Your task to perform on an android device: Empty the shopping cart on costco. Search for asus rog on costco, select the first entry, add it to the cart, then select checkout. Image 0: 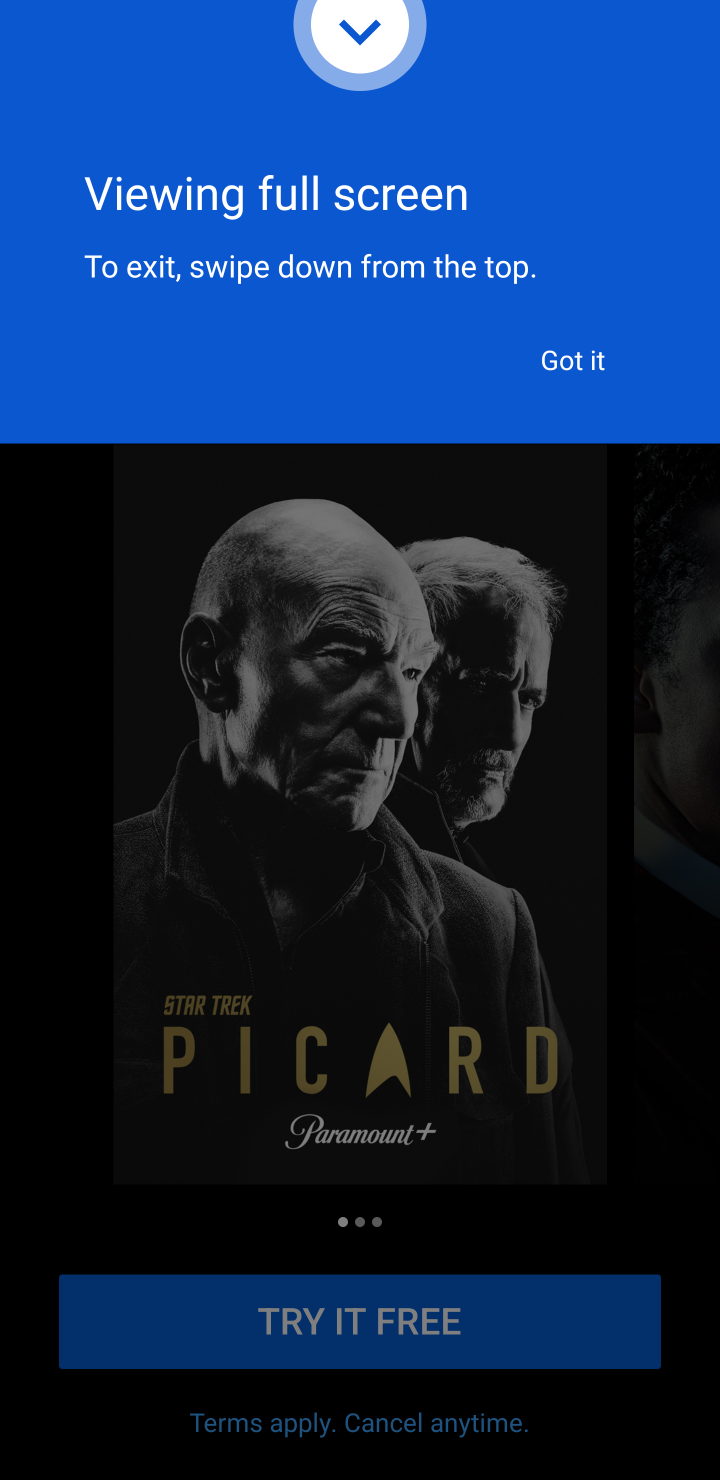
Step 0: press home button
Your task to perform on an android device: Empty the shopping cart on costco. Search for asus rog on costco, select the first entry, add it to the cart, then select checkout. Image 1: 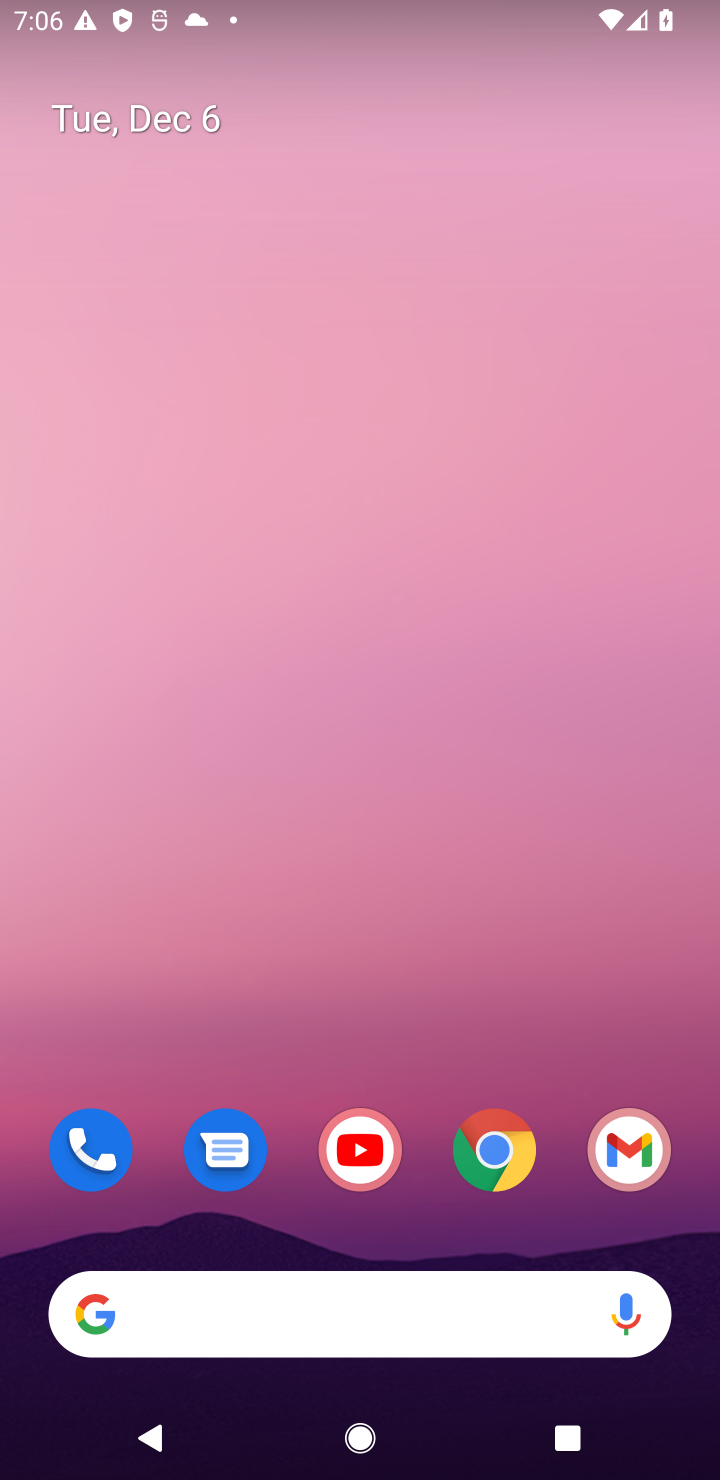
Step 1: click (500, 1146)
Your task to perform on an android device: Empty the shopping cart on costco. Search for asus rog on costco, select the first entry, add it to the cart, then select checkout. Image 2: 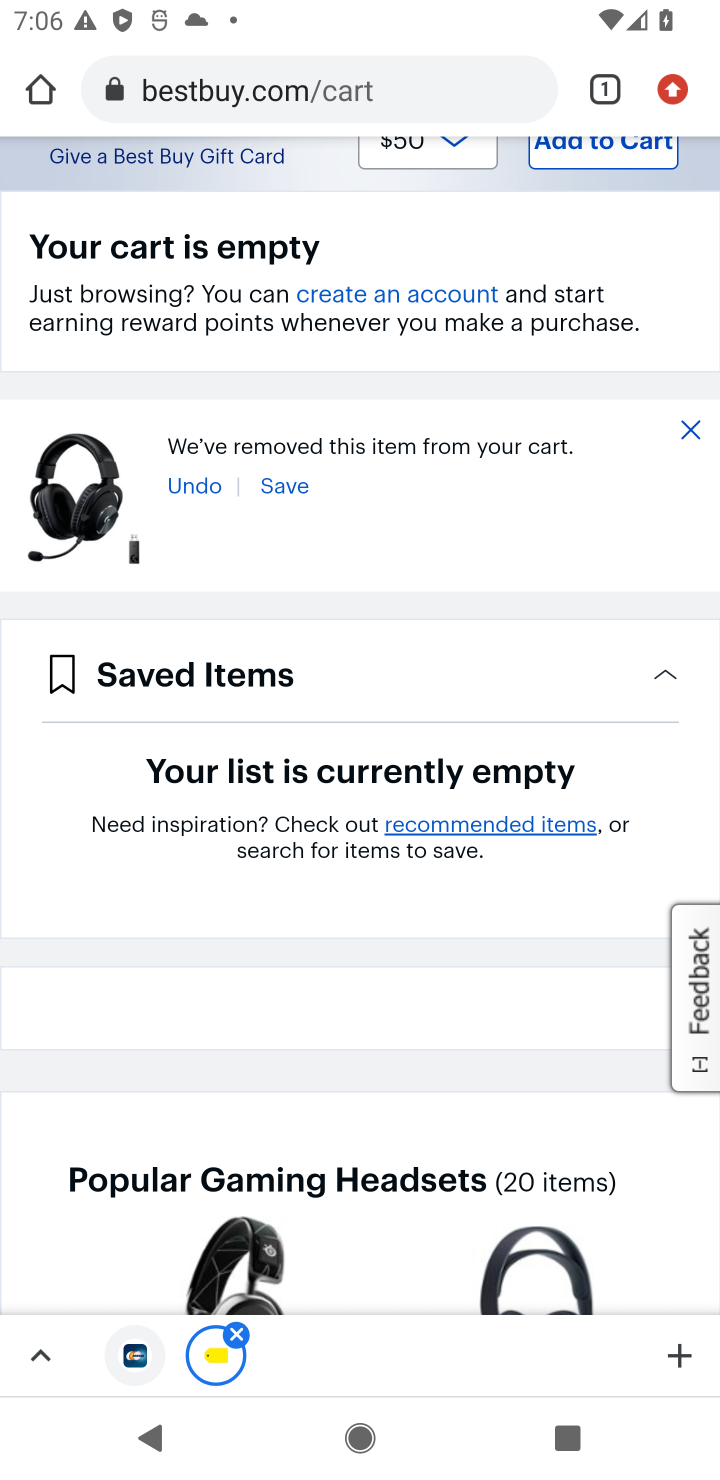
Step 2: click (271, 82)
Your task to perform on an android device: Empty the shopping cart on costco. Search for asus rog on costco, select the first entry, add it to the cart, then select checkout. Image 3: 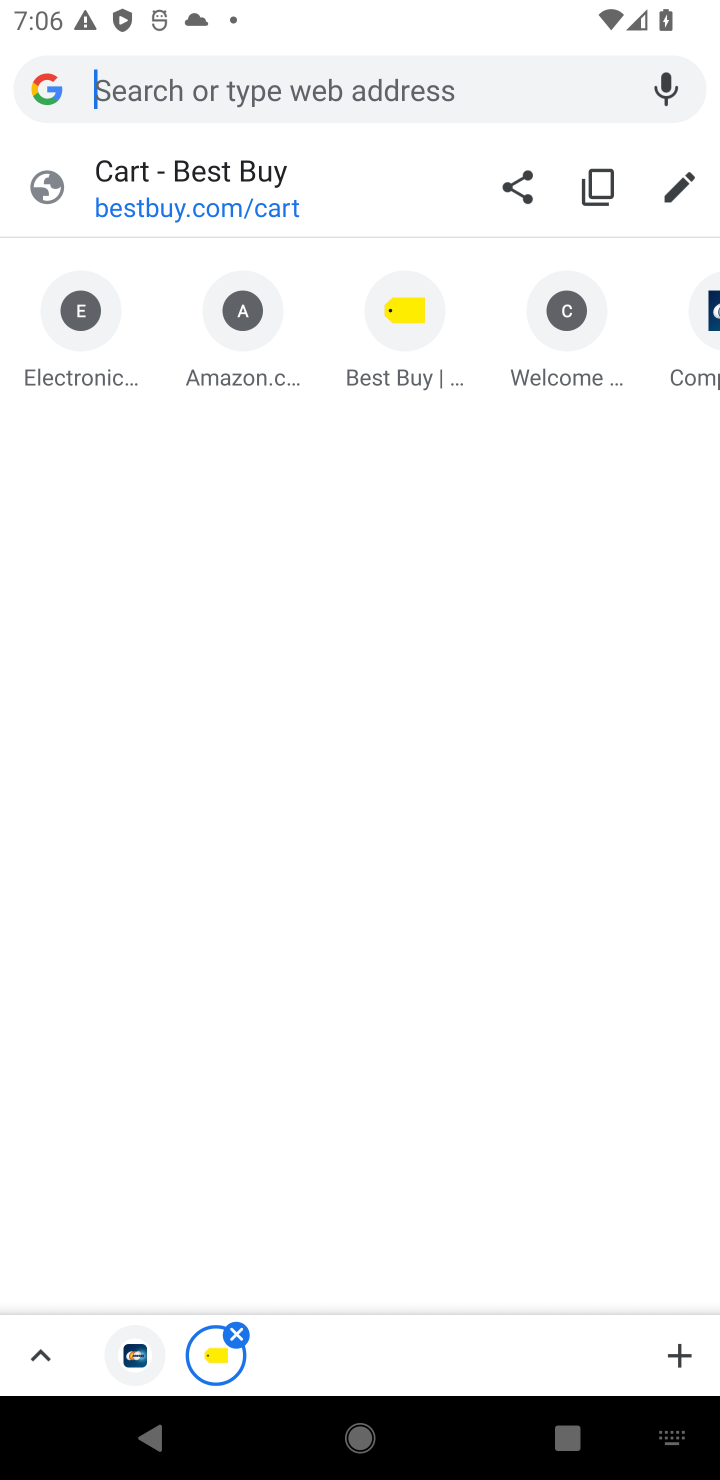
Step 3: type "costco.com"
Your task to perform on an android device: Empty the shopping cart on costco. Search for asus rog on costco, select the first entry, add it to the cart, then select checkout. Image 4: 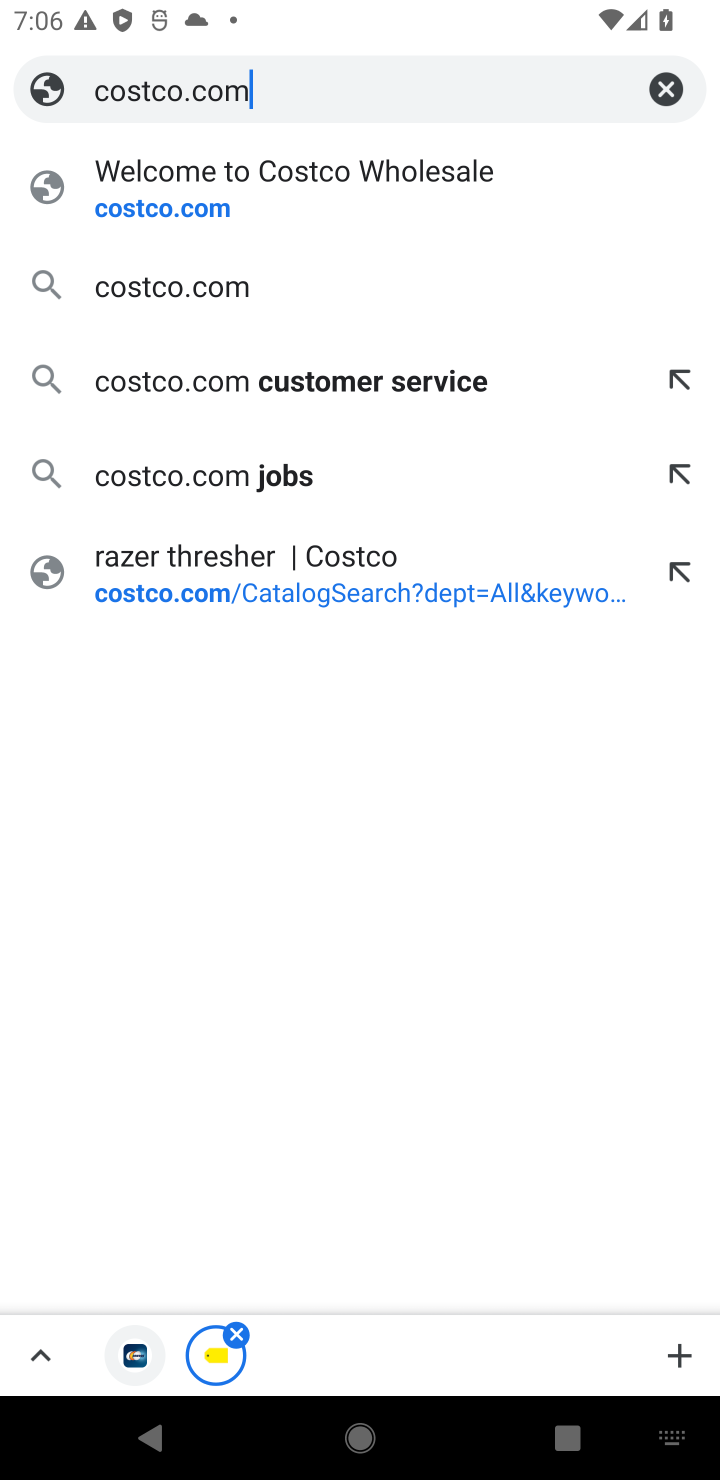
Step 4: click (206, 220)
Your task to perform on an android device: Empty the shopping cart on costco. Search for asus rog on costco, select the first entry, add it to the cart, then select checkout. Image 5: 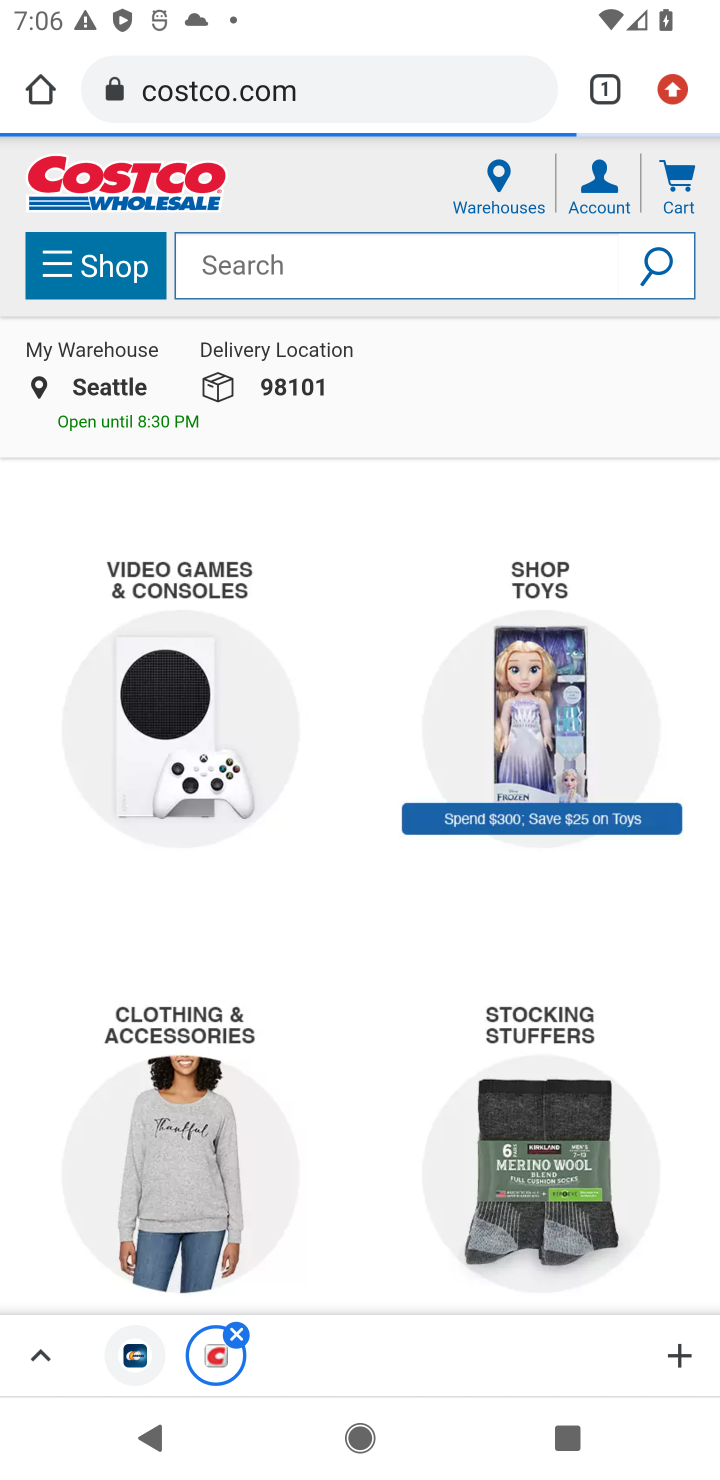
Step 5: click (685, 201)
Your task to perform on an android device: Empty the shopping cart on costco. Search for asus rog on costco, select the first entry, add it to the cart, then select checkout. Image 6: 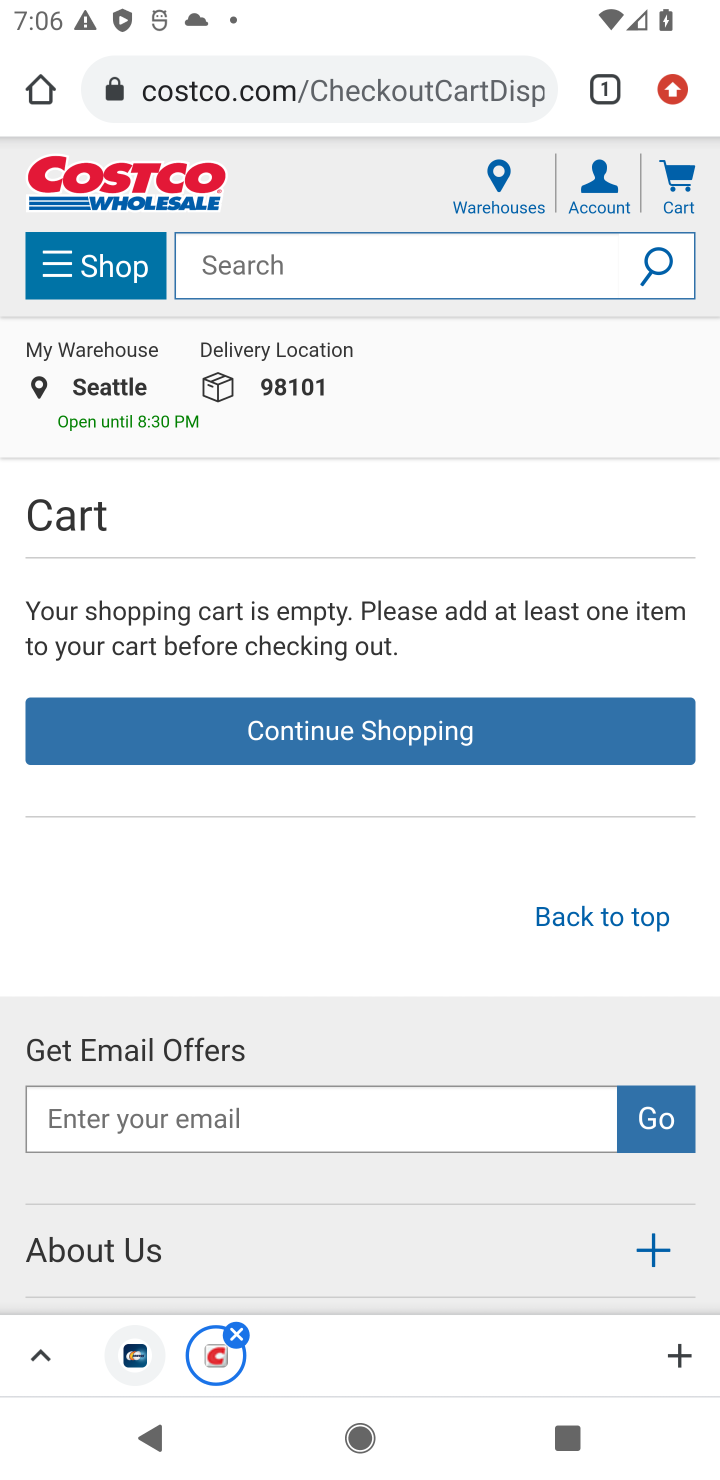
Step 6: click (253, 281)
Your task to perform on an android device: Empty the shopping cart on costco. Search for asus rog on costco, select the first entry, add it to the cart, then select checkout. Image 7: 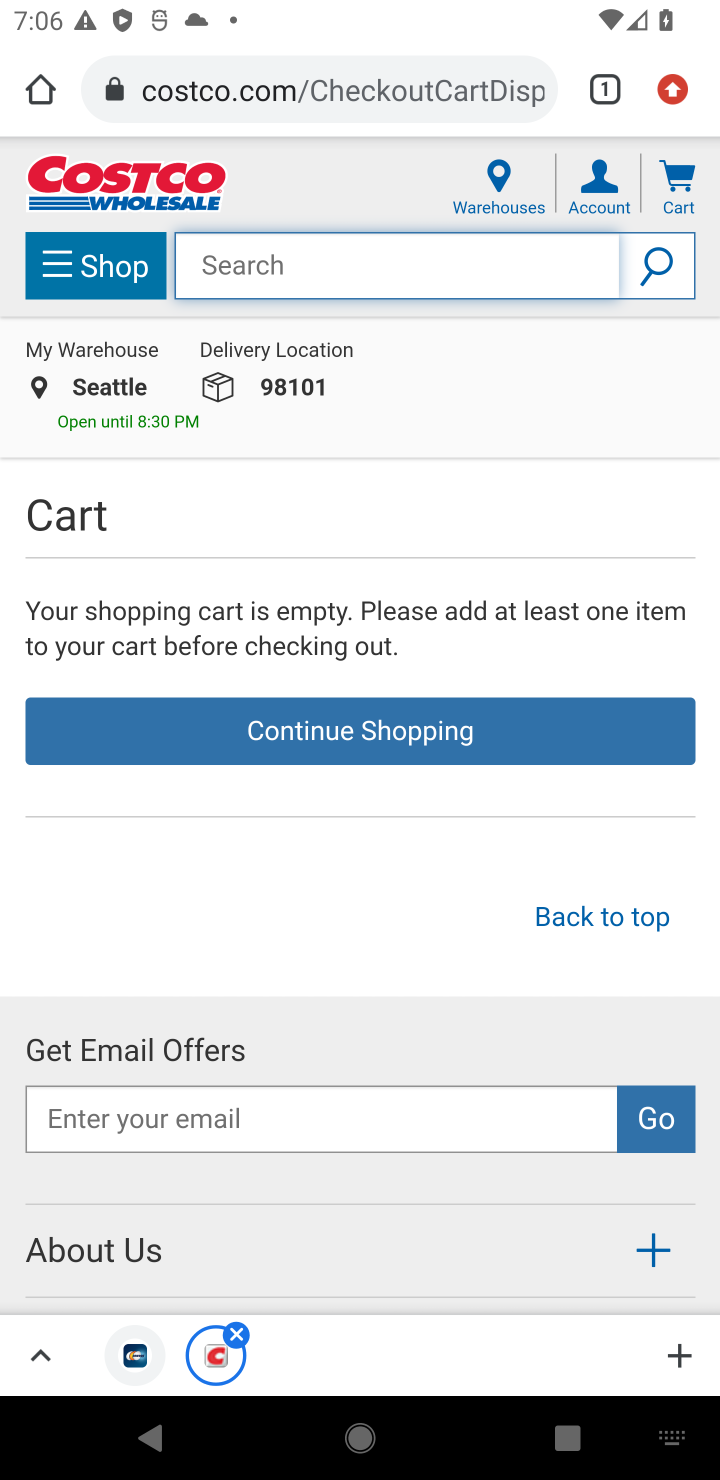
Step 7: type "asus rog"
Your task to perform on an android device: Empty the shopping cart on costco. Search for asus rog on costco, select the first entry, add it to the cart, then select checkout. Image 8: 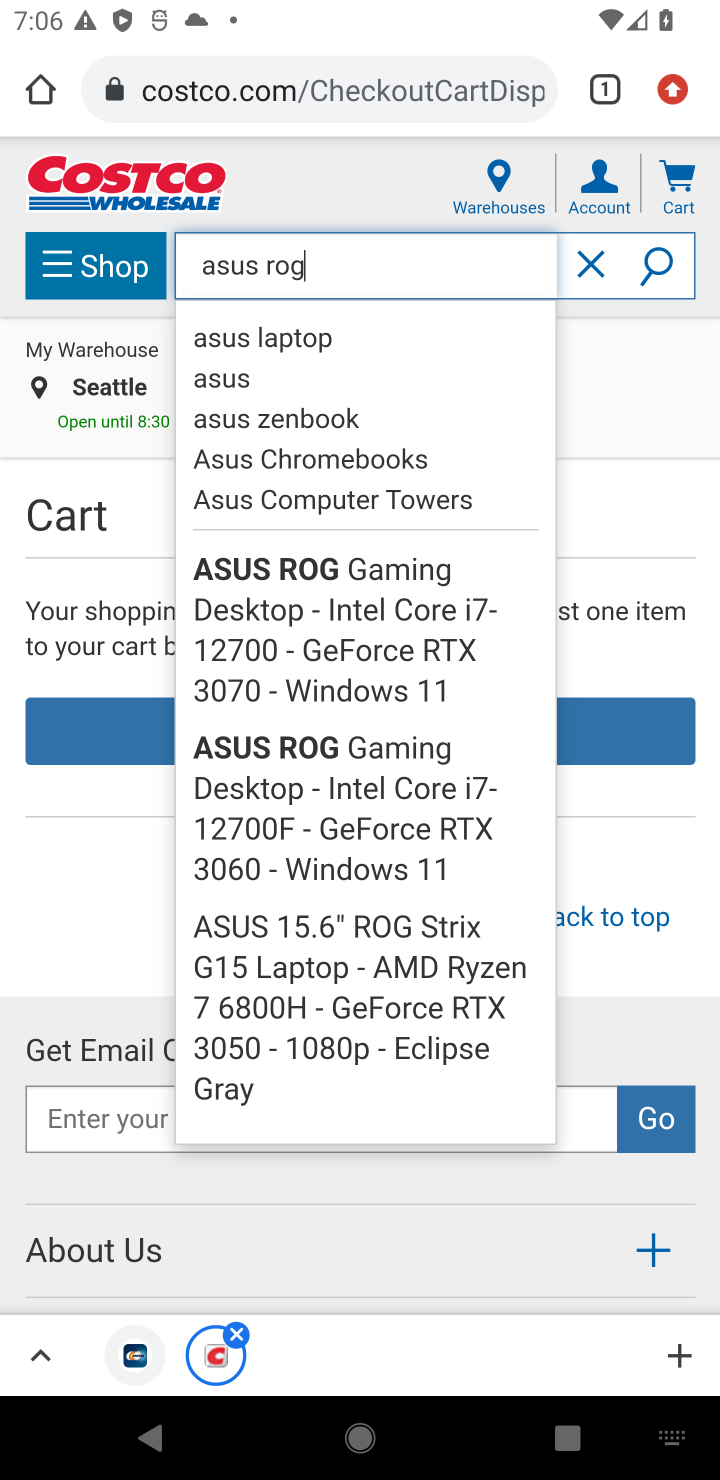
Step 8: click (644, 262)
Your task to perform on an android device: Empty the shopping cart on costco. Search for asus rog on costco, select the first entry, add it to the cart, then select checkout. Image 9: 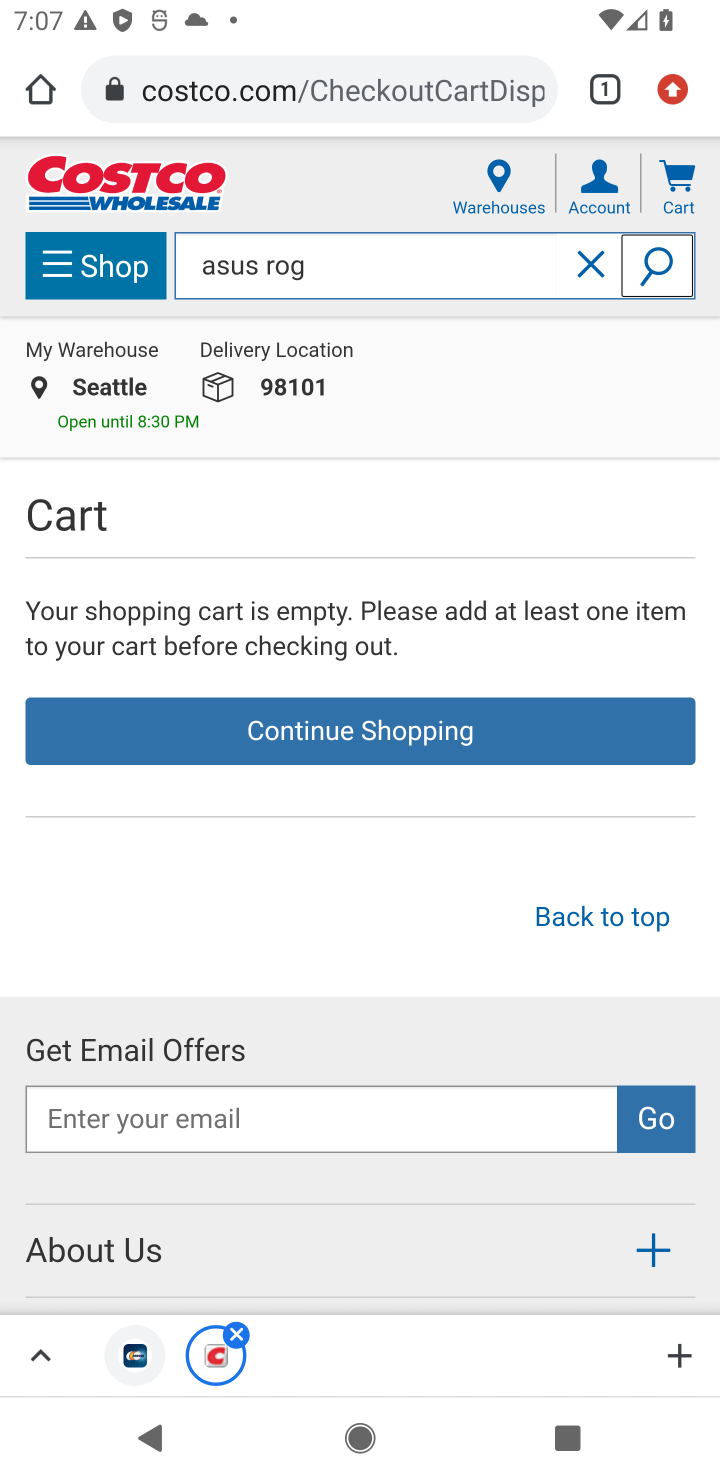
Step 9: click (669, 267)
Your task to perform on an android device: Empty the shopping cart on costco. Search for asus rog on costco, select the first entry, add it to the cart, then select checkout. Image 10: 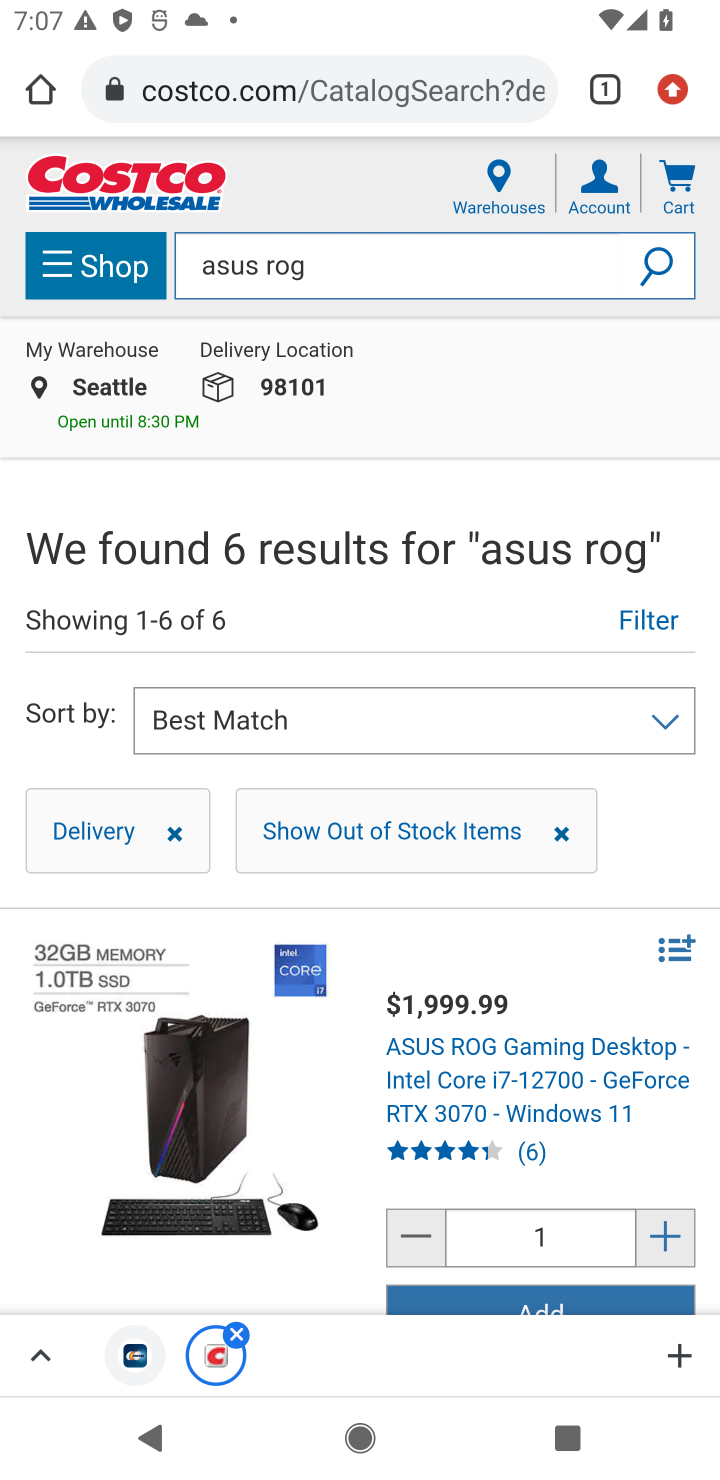
Step 10: drag from (501, 1061) to (509, 687)
Your task to perform on an android device: Empty the shopping cart on costco. Search for asus rog on costco, select the first entry, add it to the cart, then select checkout. Image 11: 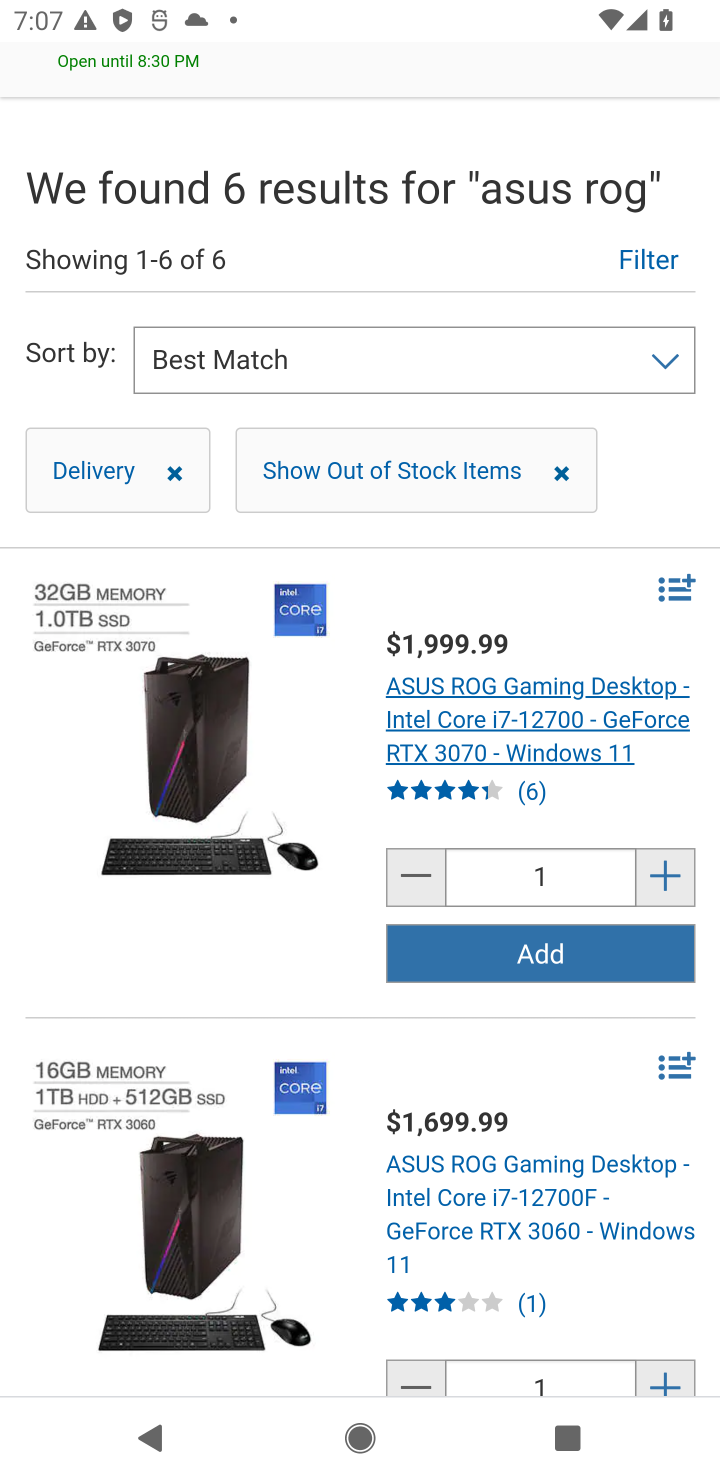
Step 11: click (526, 953)
Your task to perform on an android device: Empty the shopping cart on costco. Search for asus rog on costco, select the first entry, add it to the cart, then select checkout. Image 12: 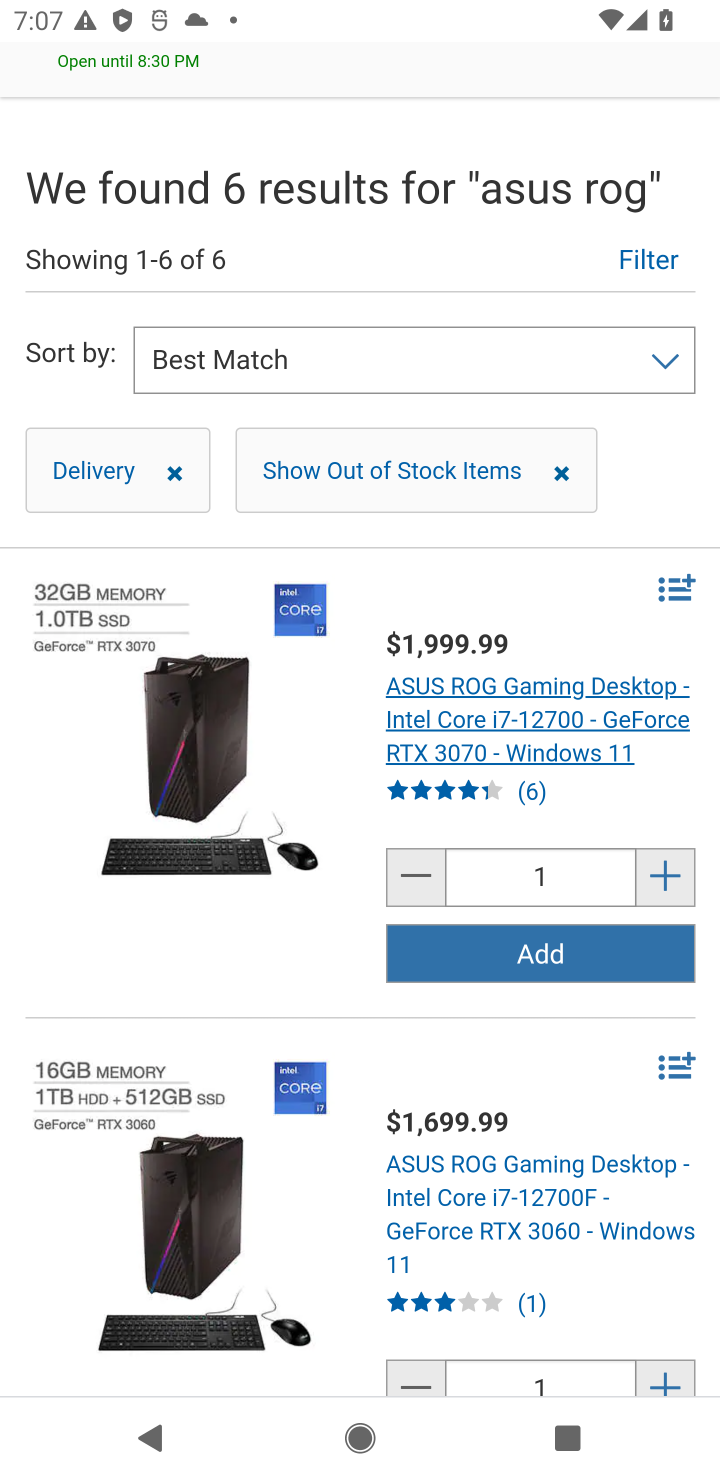
Step 12: click (513, 966)
Your task to perform on an android device: Empty the shopping cart on costco. Search for asus rog on costco, select the first entry, add it to the cart, then select checkout. Image 13: 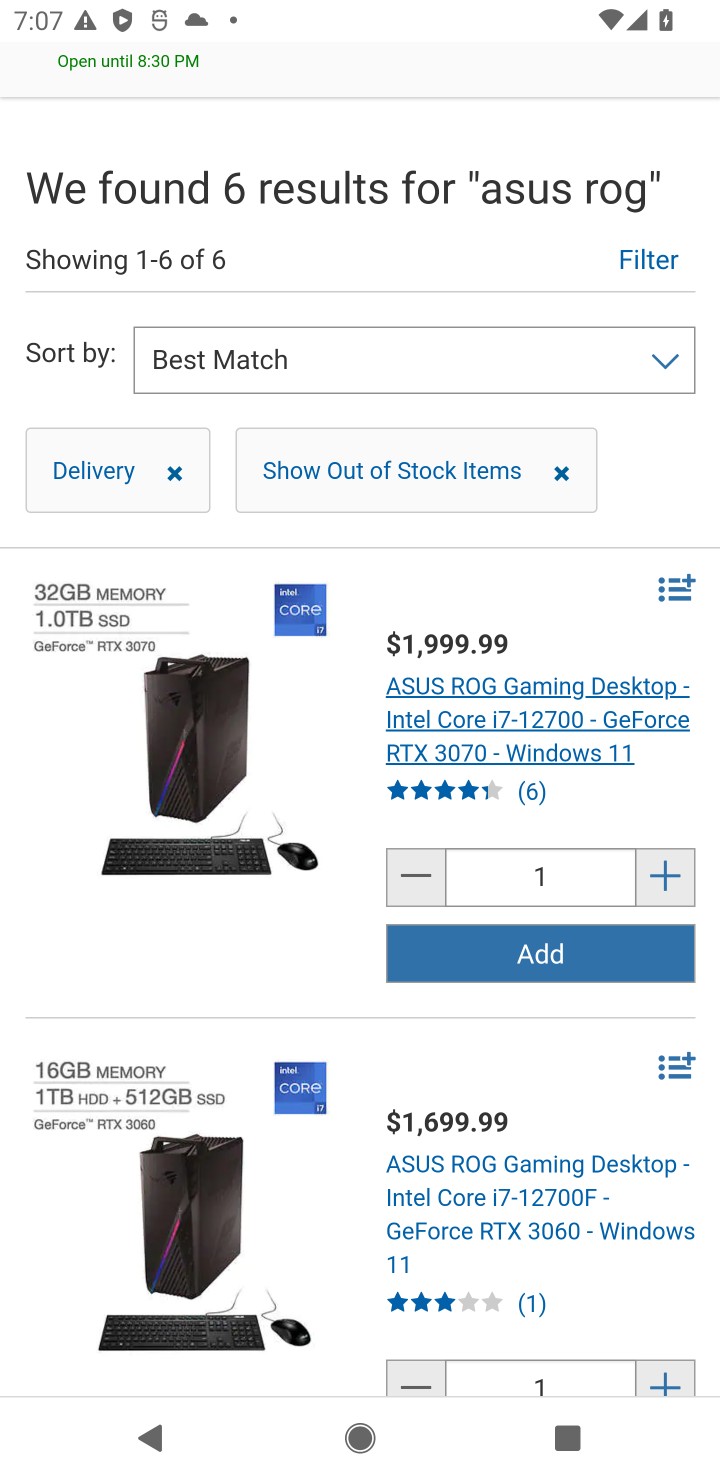
Step 13: click (518, 958)
Your task to perform on an android device: Empty the shopping cart on costco. Search for asus rog on costco, select the first entry, add it to the cart, then select checkout. Image 14: 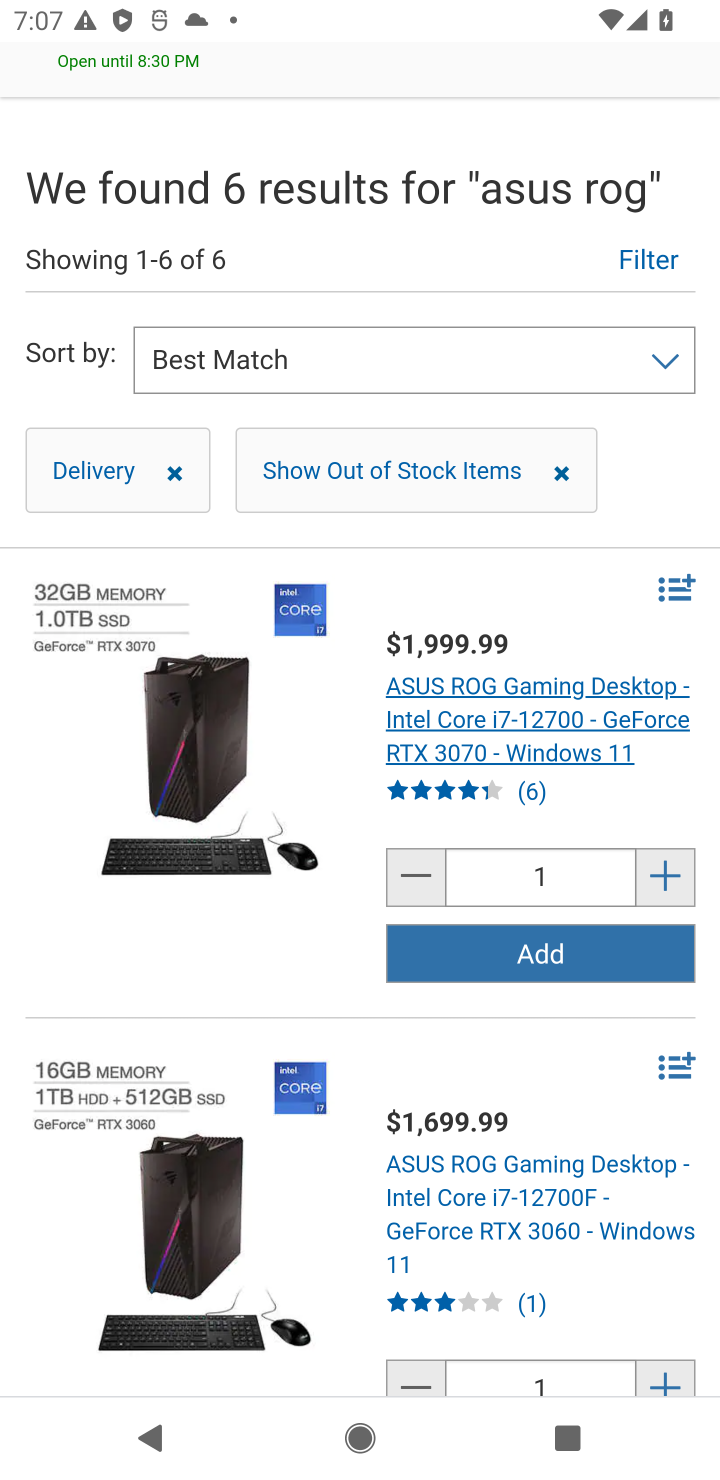
Step 14: drag from (616, 601) to (552, 1002)
Your task to perform on an android device: Empty the shopping cart on costco. Search for asus rog on costco, select the first entry, add it to the cart, then select checkout. Image 15: 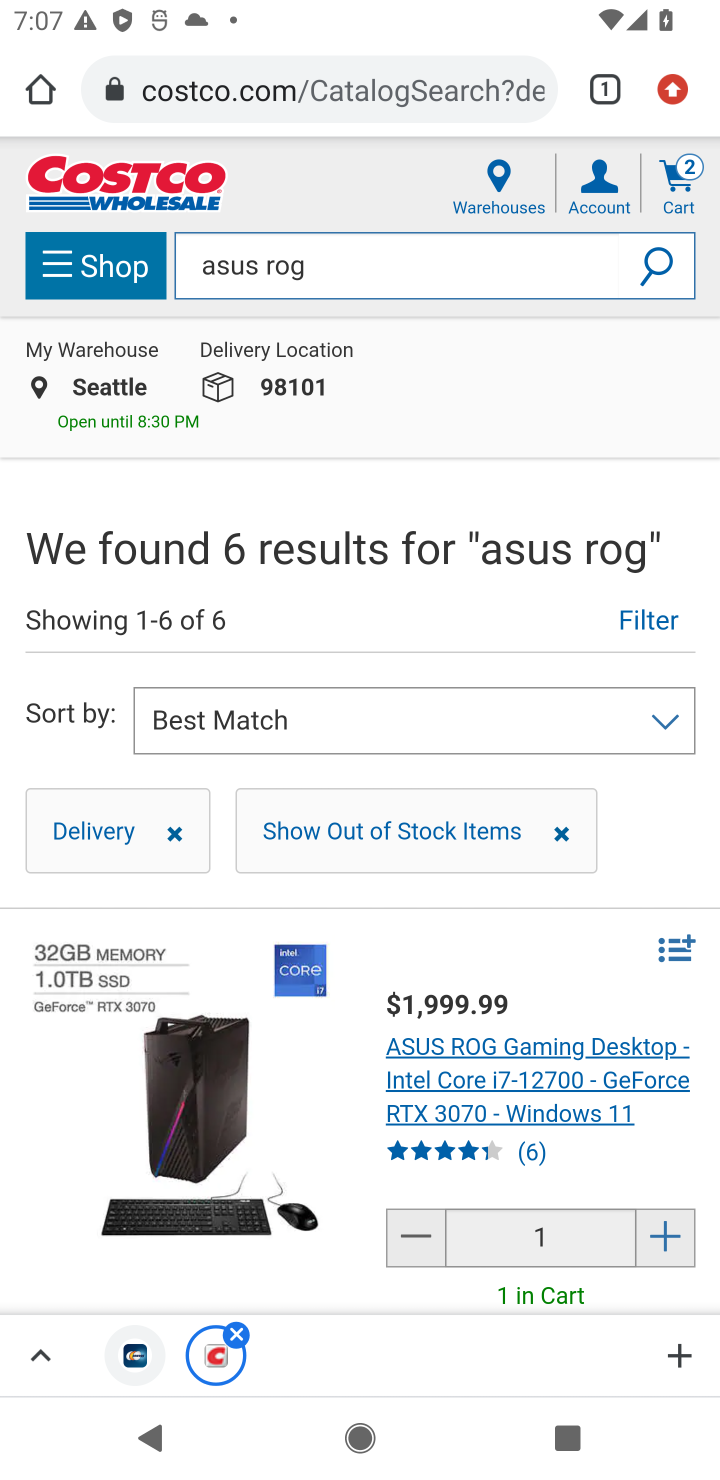
Step 15: click (198, 1112)
Your task to perform on an android device: Empty the shopping cart on costco. Search for asus rog on costco, select the first entry, add it to the cart, then select checkout. Image 16: 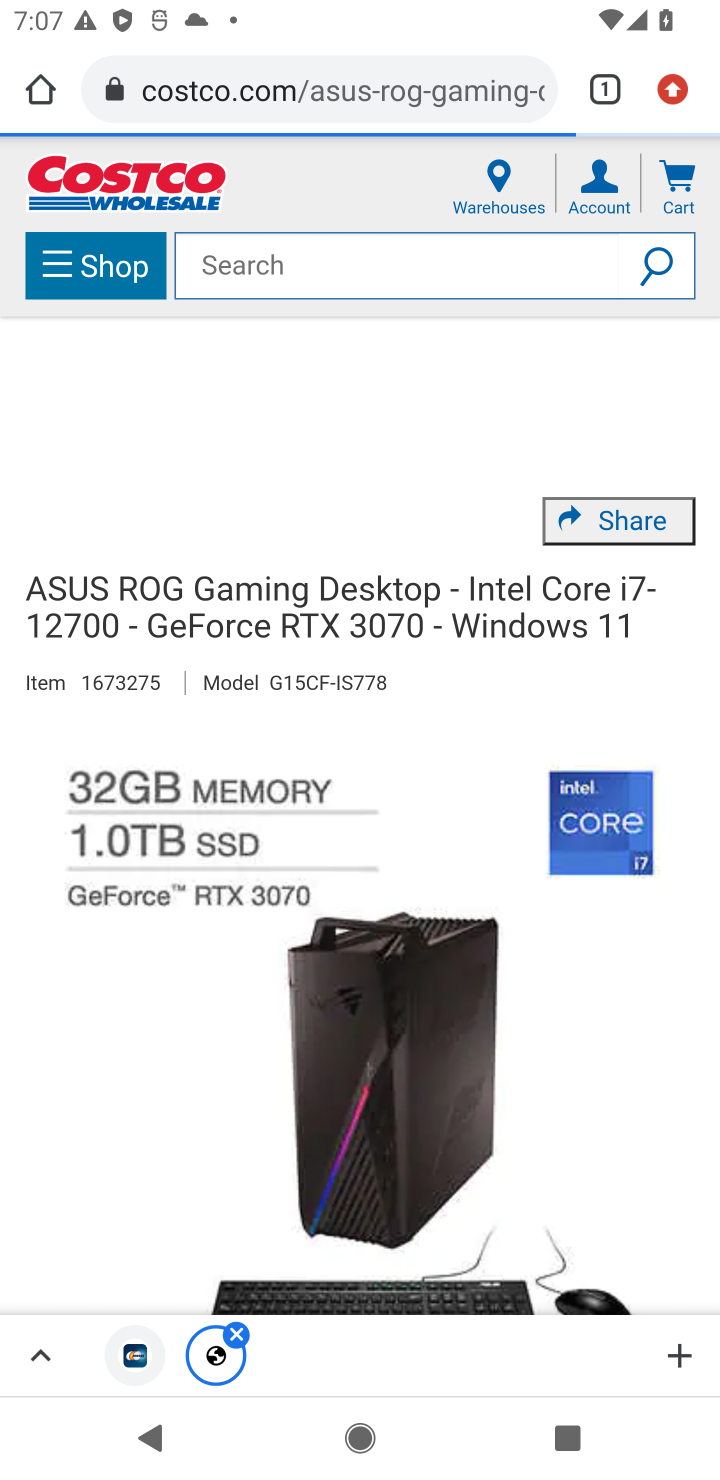
Step 16: click (676, 181)
Your task to perform on an android device: Empty the shopping cart on costco. Search for asus rog on costco, select the first entry, add it to the cart, then select checkout. Image 17: 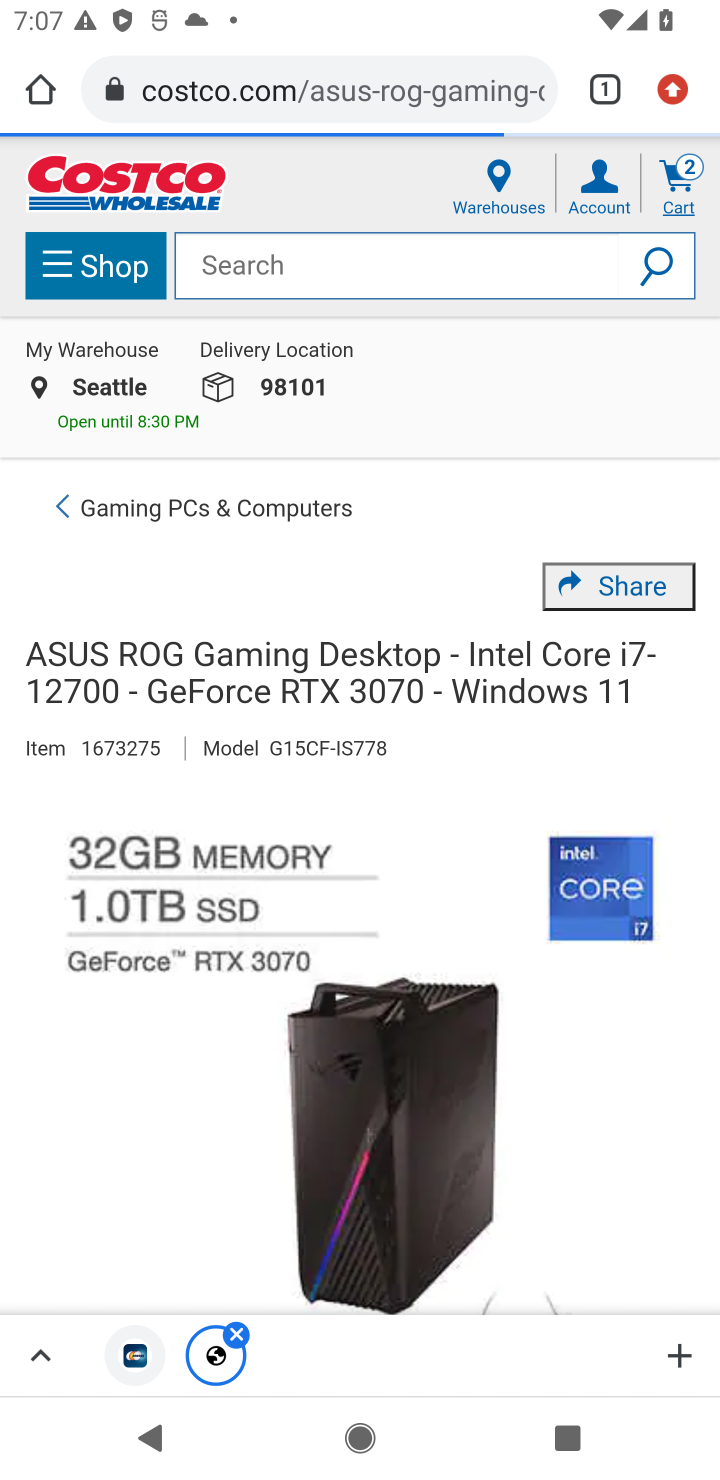
Step 17: drag from (421, 971) to (435, 302)
Your task to perform on an android device: Empty the shopping cart on costco. Search for asus rog on costco, select the first entry, add it to the cart, then select checkout. Image 18: 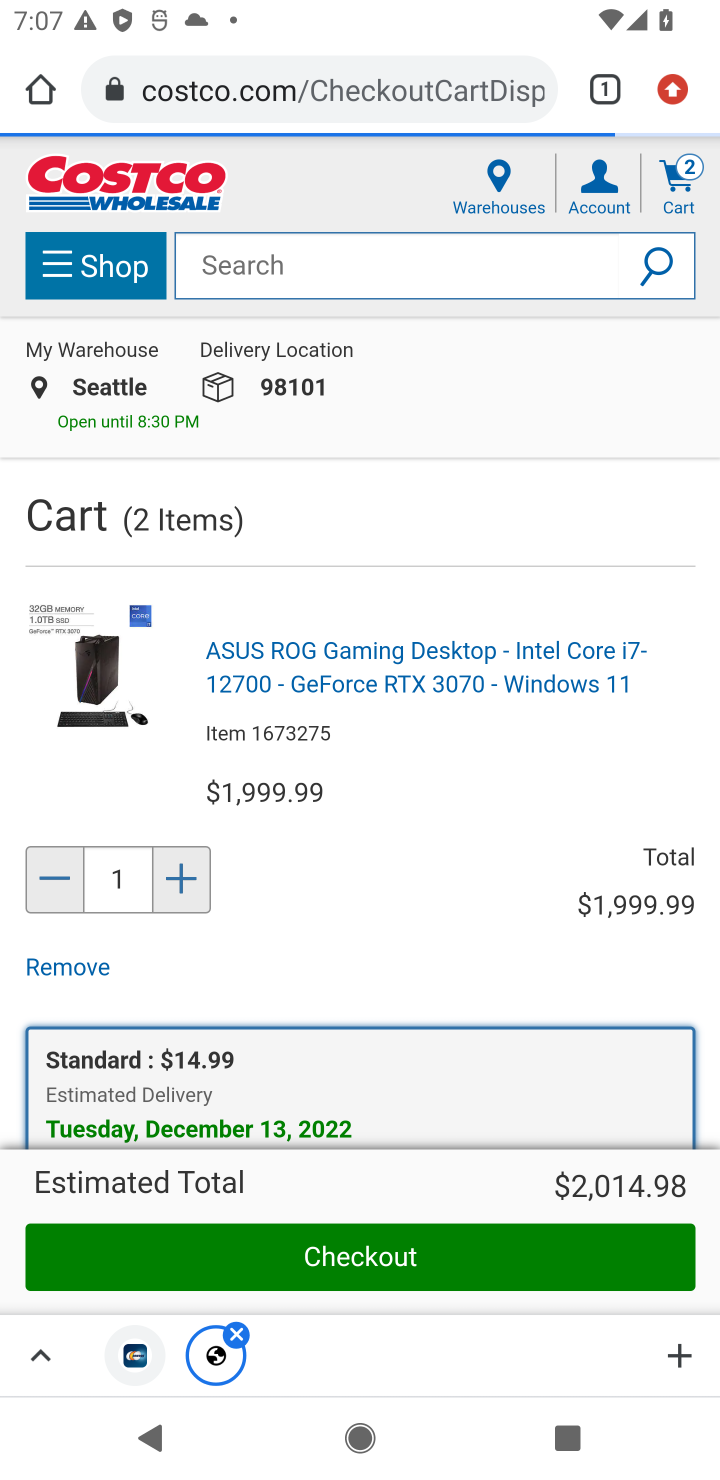
Step 18: drag from (343, 897) to (364, 593)
Your task to perform on an android device: Empty the shopping cart on costco. Search for asus rog on costco, select the first entry, add it to the cart, then select checkout. Image 19: 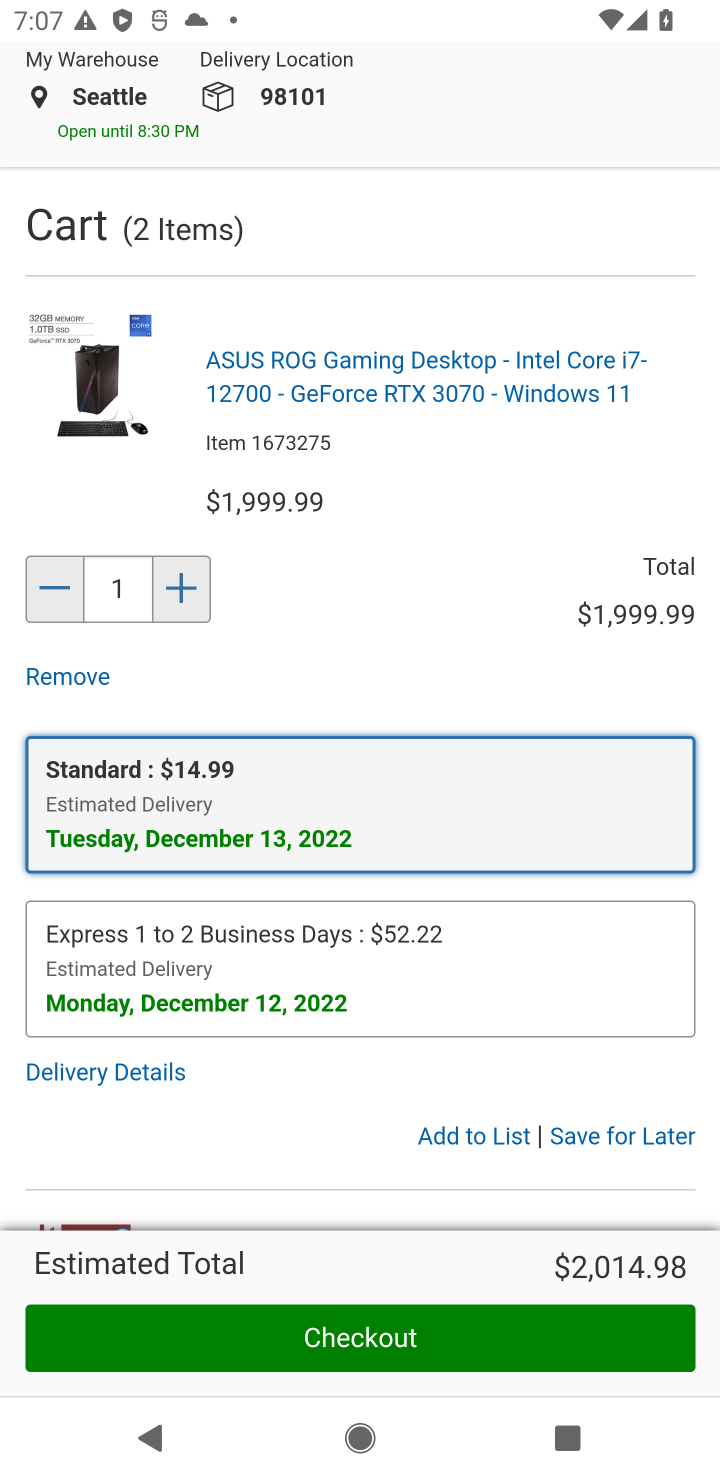
Step 19: click (315, 1327)
Your task to perform on an android device: Empty the shopping cart on costco. Search for asus rog on costco, select the first entry, add it to the cart, then select checkout. Image 20: 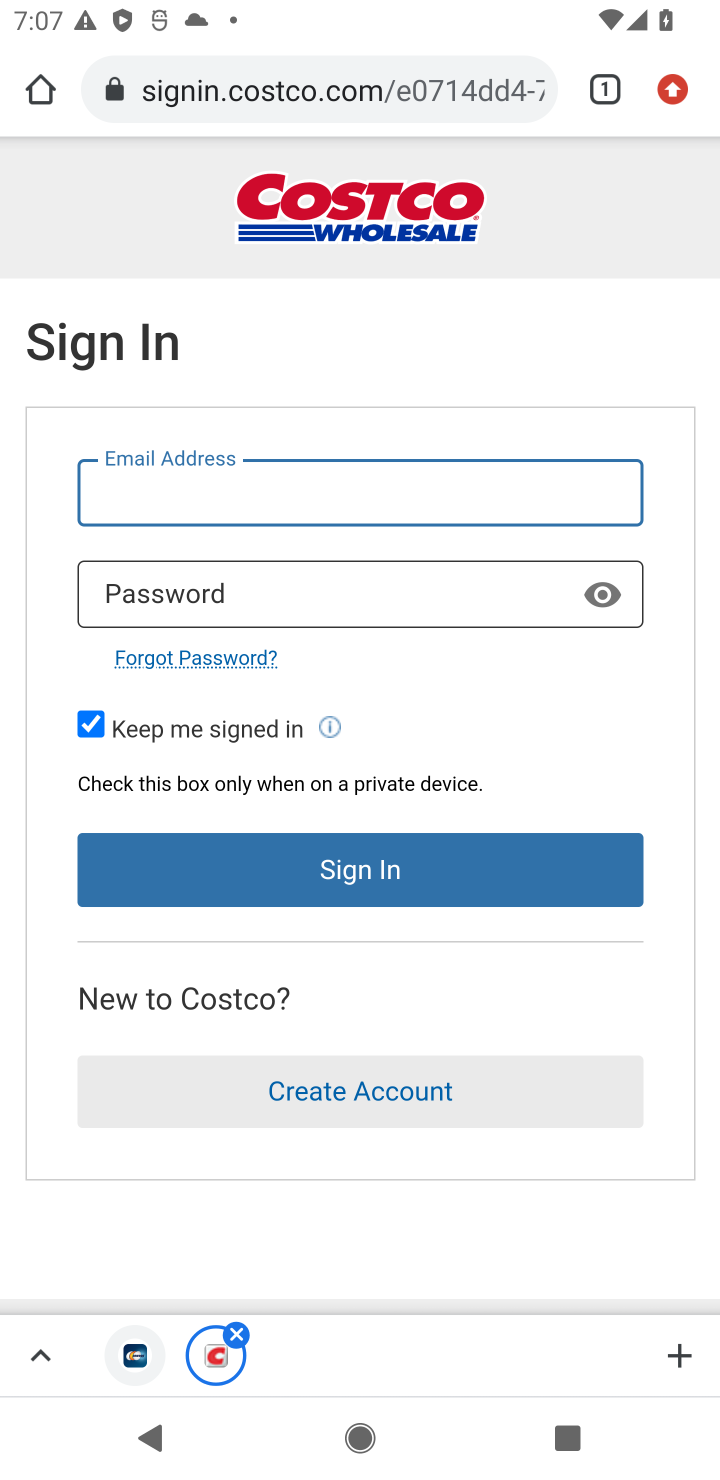
Step 20: task complete